Your task to perform on an android device: toggle translation in the chrome app Image 0: 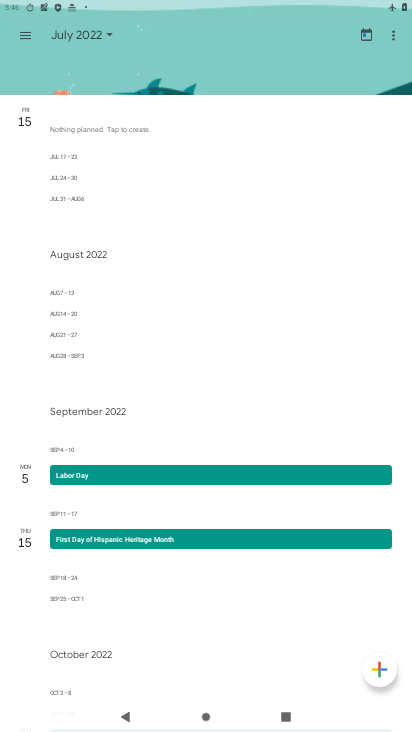
Step 0: press home button
Your task to perform on an android device: toggle translation in the chrome app Image 1: 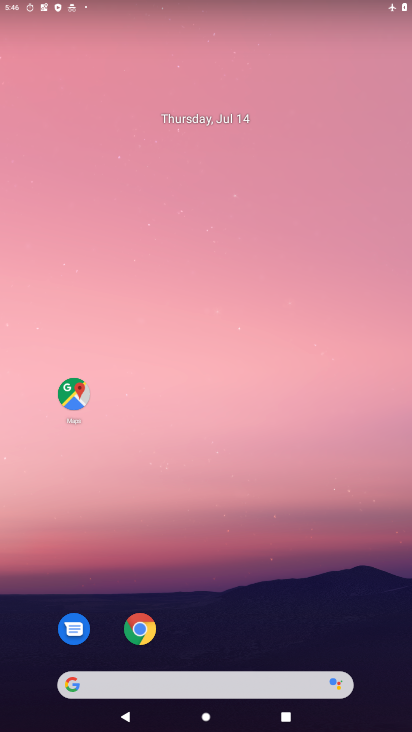
Step 1: drag from (289, 447) to (328, 0)
Your task to perform on an android device: toggle translation in the chrome app Image 2: 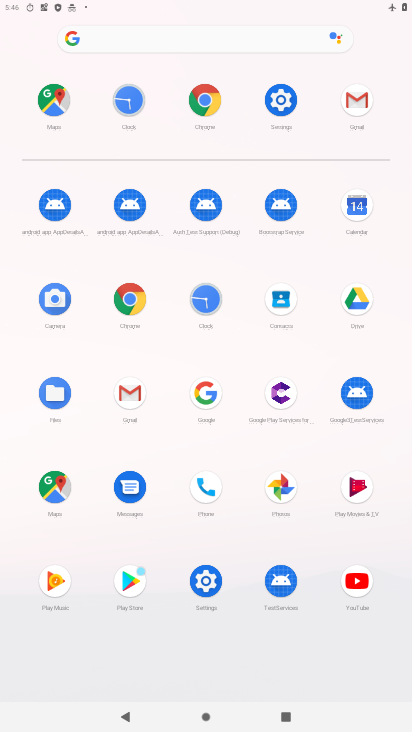
Step 2: click (132, 296)
Your task to perform on an android device: toggle translation in the chrome app Image 3: 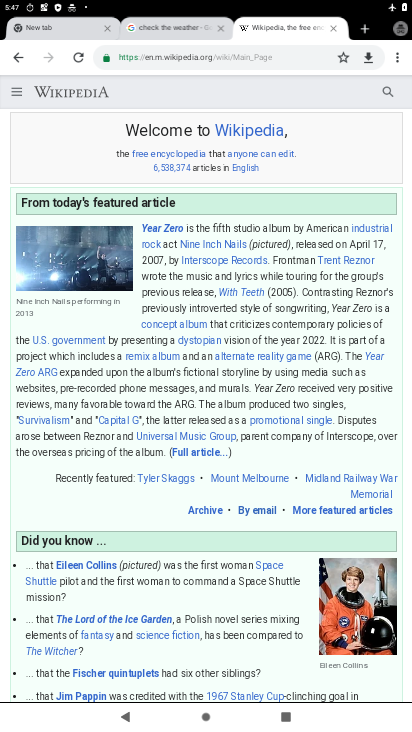
Step 3: drag from (398, 55) to (311, 352)
Your task to perform on an android device: toggle translation in the chrome app Image 4: 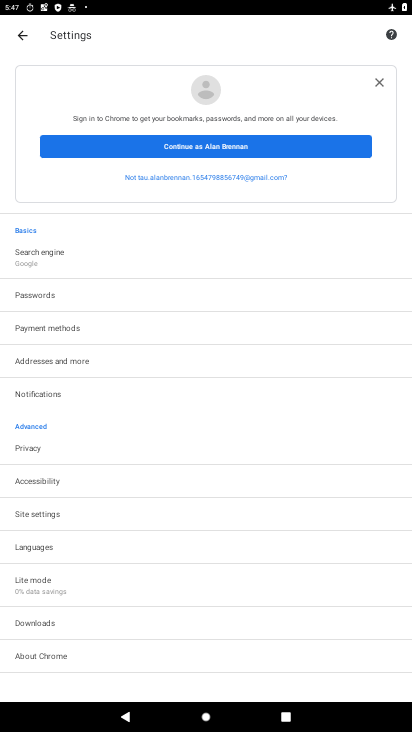
Step 4: click (53, 544)
Your task to perform on an android device: toggle translation in the chrome app Image 5: 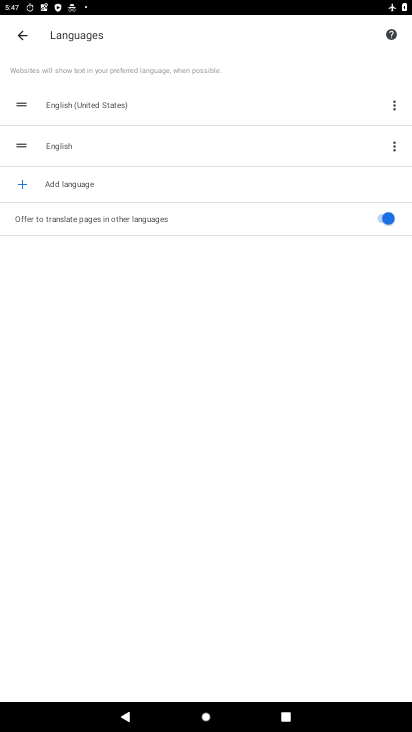
Step 5: click (377, 219)
Your task to perform on an android device: toggle translation in the chrome app Image 6: 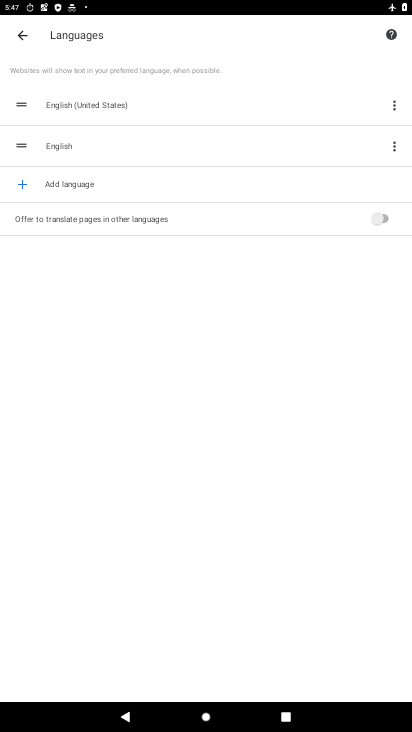
Step 6: task complete